Your task to perform on an android device: Do I have any events this weekend? Image 0: 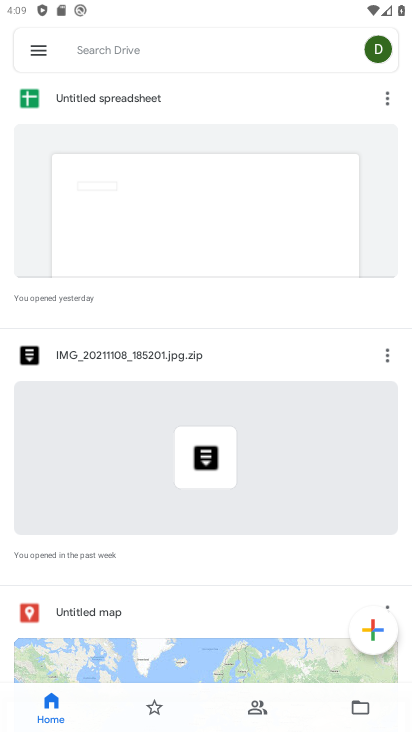
Step 0: press back button
Your task to perform on an android device: Do I have any events this weekend? Image 1: 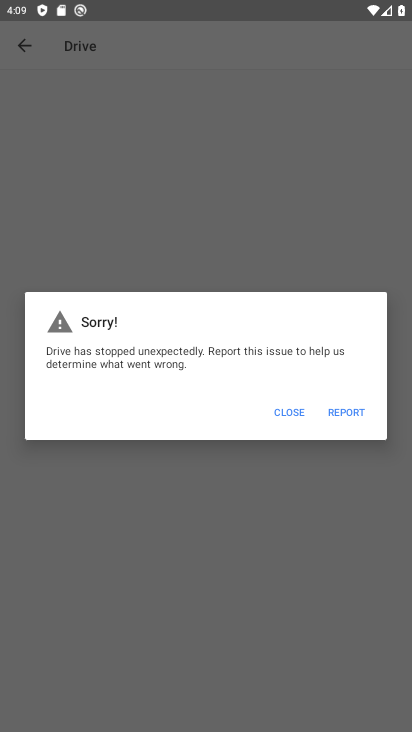
Step 1: press home button
Your task to perform on an android device: Do I have any events this weekend? Image 2: 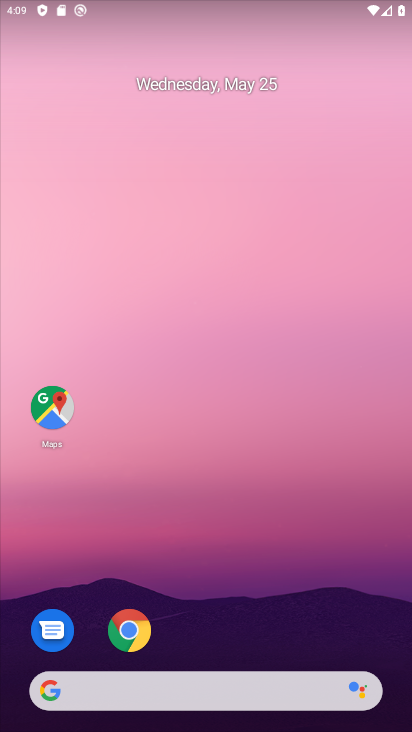
Step 2: drag from (209, 613) to (302, 96)
Your task to perform on an android device: Do I have any events this weekend? Image 3: 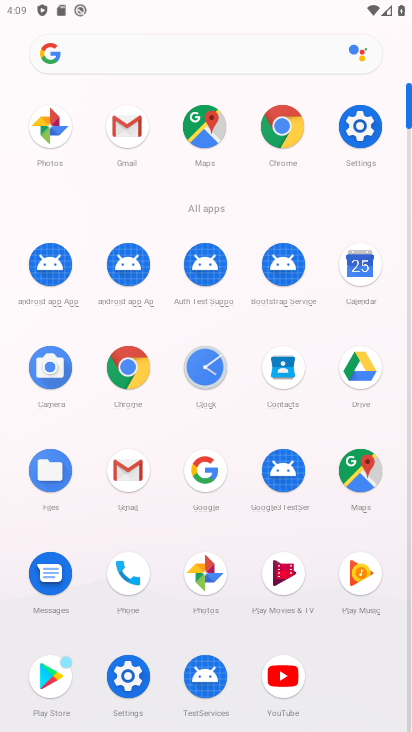
Step 3: click (367, 258)
Your task to perform on an android device: Do I have any events this weekend? Image 4: 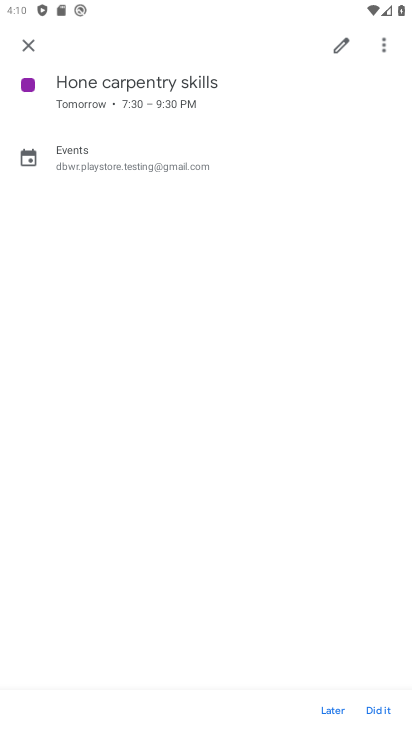
Step 4: click (28, 32)
Your task to perform on an android device: Do I have any events this weekend? Image 5: 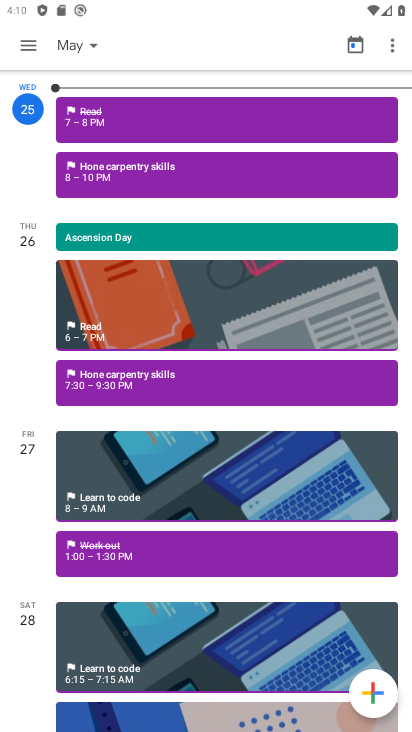
Step 5: drag from (213, 663) to (248, 260)
Your task to perform on an android device: Do I have any events this weekend? Image 6: 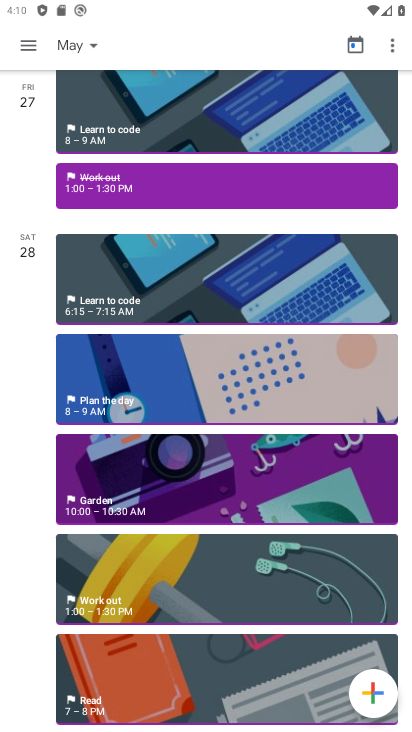
Step 6: click (122, 491)
Your task to perform on an android device: Do I have any events this weekend? Image 7: 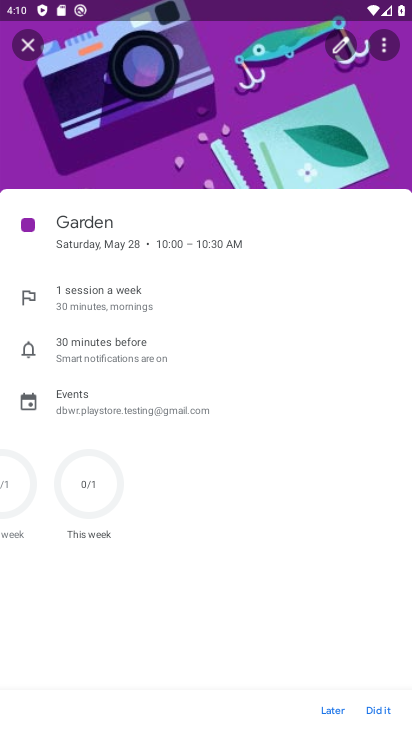
Step 7: task complete